Your task to perform on an android device: change timer sound Image 0: 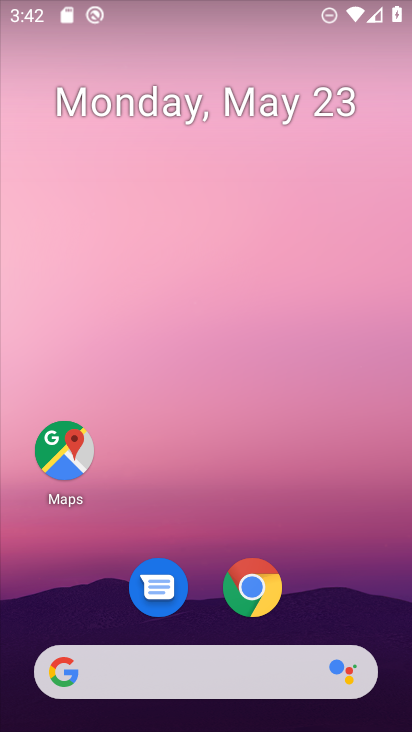
Step 0: drag from (198, 555) to (222, 3)
Your task to perform on an android device: change timer sound Image 1: 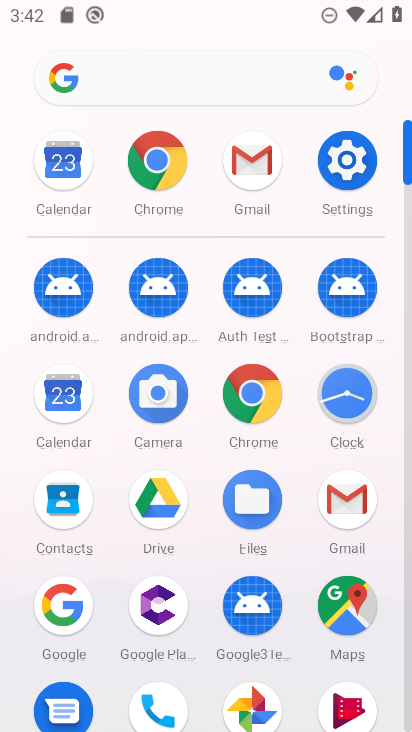
Step 1: click (349, 408)
Your task to perform on an android device: change timer sound Image 2: 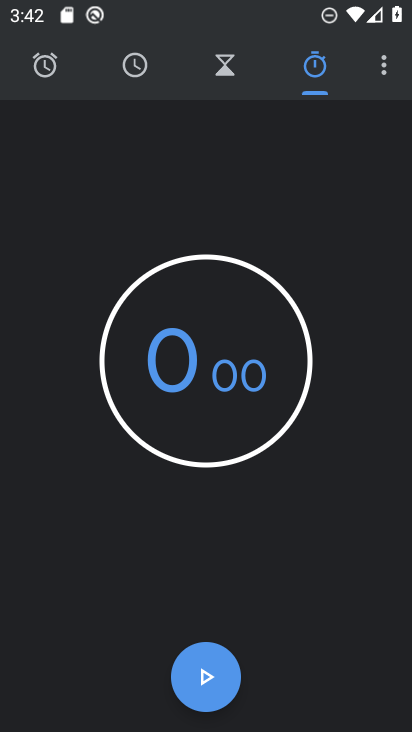
Step 2: click (226, 69)
Your task to perform on an android device: change timer sound Image 3: 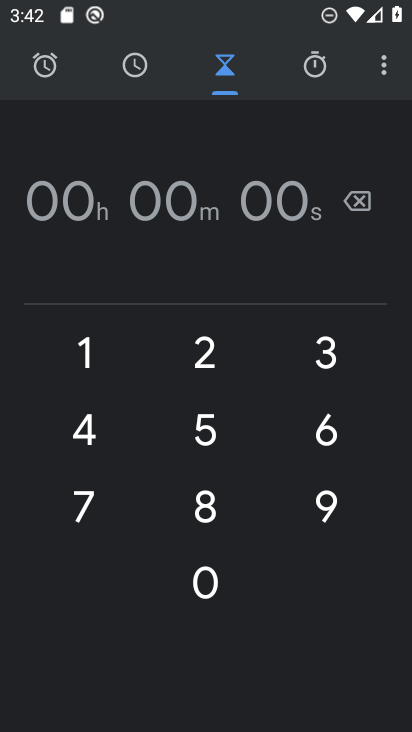
Step 3: click (370, 68)
Your task to perform on an android device: change timer sound Image 4: 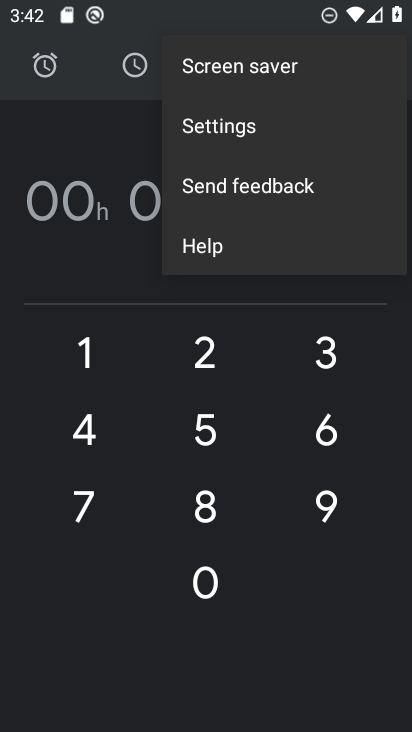
Step 4: click (238, 128)
Your task to perform on an android device: change timer sound Image 5: 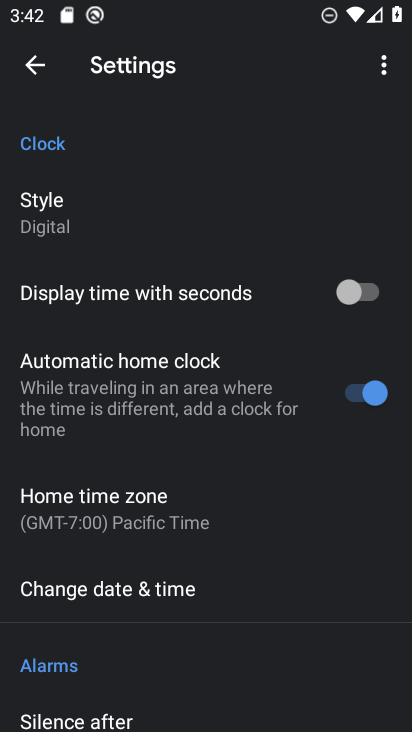
Step 5: drag from (154, 504) to (212, 184)
Your task to perform on an android device: change timer sound Image 6: 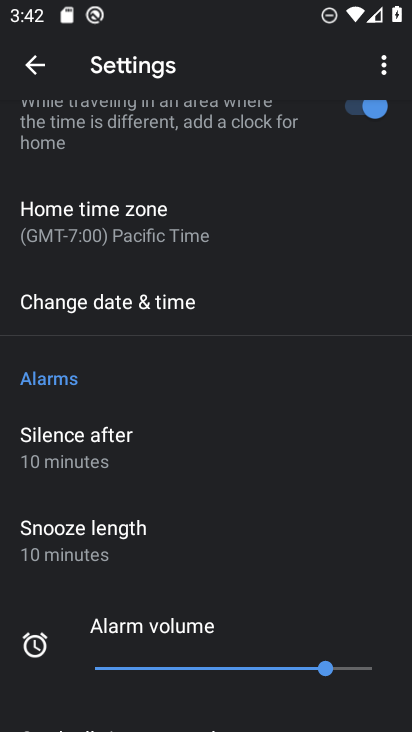
Step 6: drag from (102, 584) to (197, 175)
Your task to perform on an android device: change timer sound Image 7: 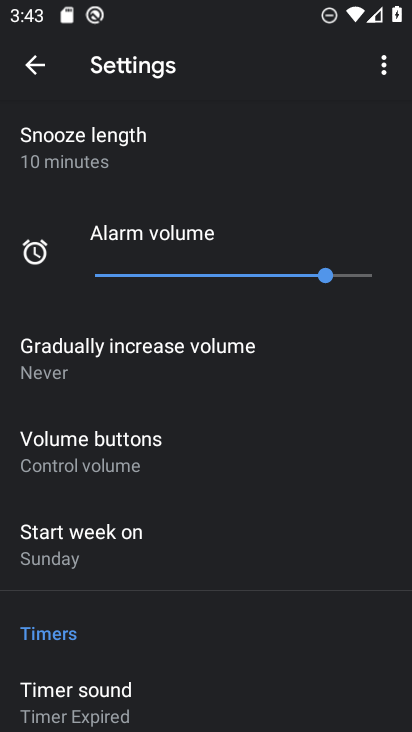
Step 7: drag from (107, 664) to (119, 437)
Your task to perform on an android device: change timer sound Image 8: 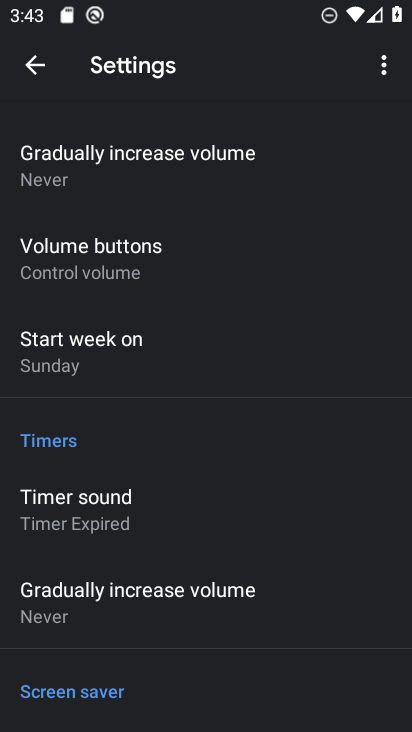
Step 8: click (89, 522)
Your task to perform on an android device: change timer sound Image 9: 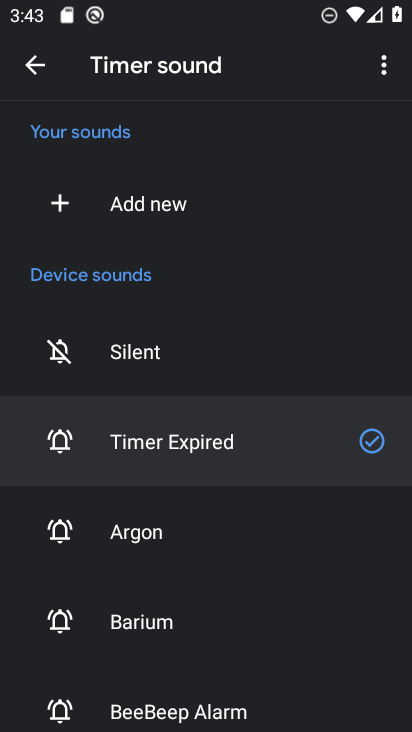
Step 9: click (153, 628)
Your task to perform on an android device: change timer sound Image 10: 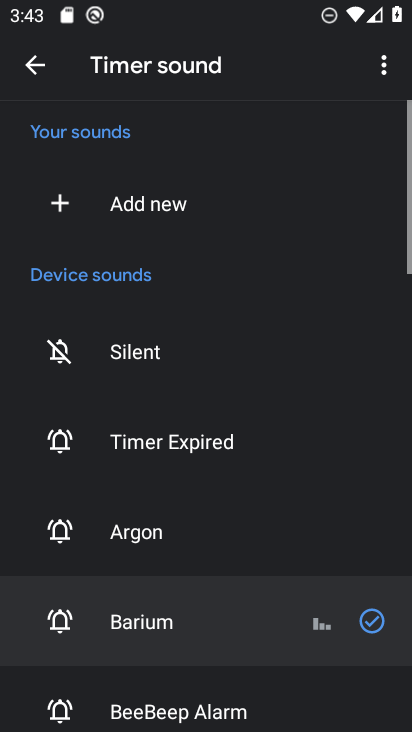
Step 10: task complete